Your task to perform on an android device: Go to Amazon Image 0: 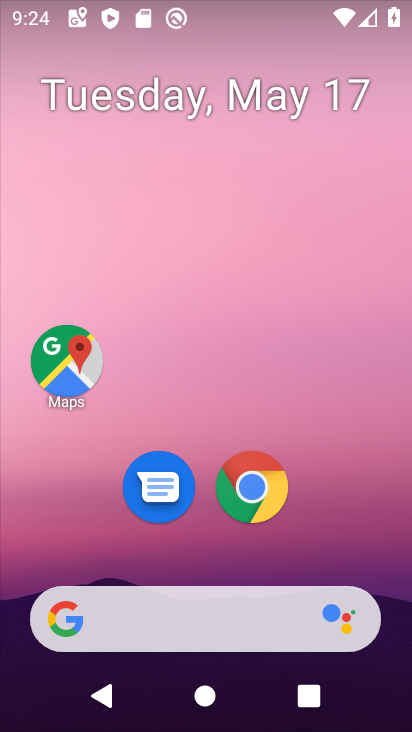
Step 0: press home button
Your task to perform on an android device: Go to Amazon Image 1: 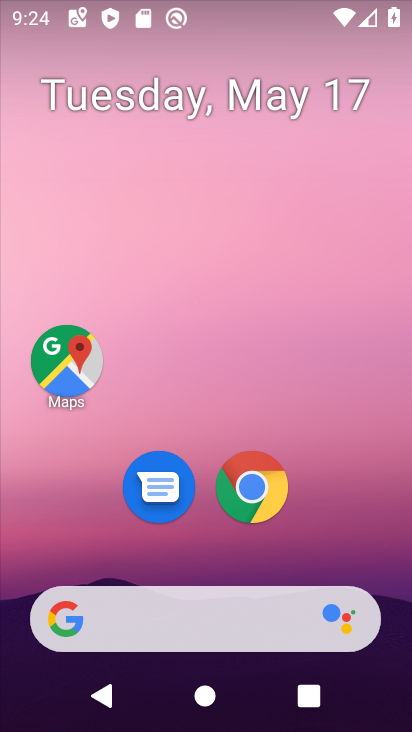
Step 1: drag from (280, 637) to (101, 196)
Your task to perform on an android device: Go to Amazon Image 2: 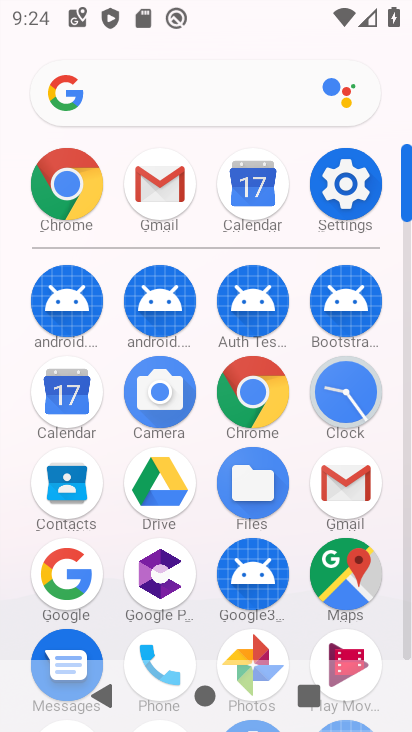
Step 2: click (55, 182)
Your task to perform on an android device: Go to Amazon Image 3: 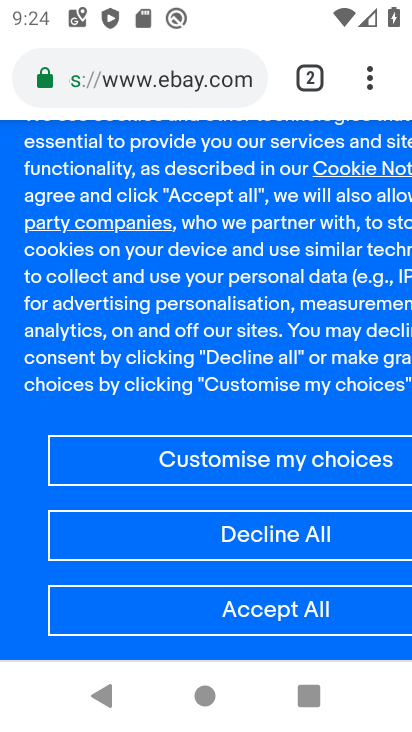
Step 3: click (367, 78)
Your task to perform on an android device: Go to Amazon Image 4: 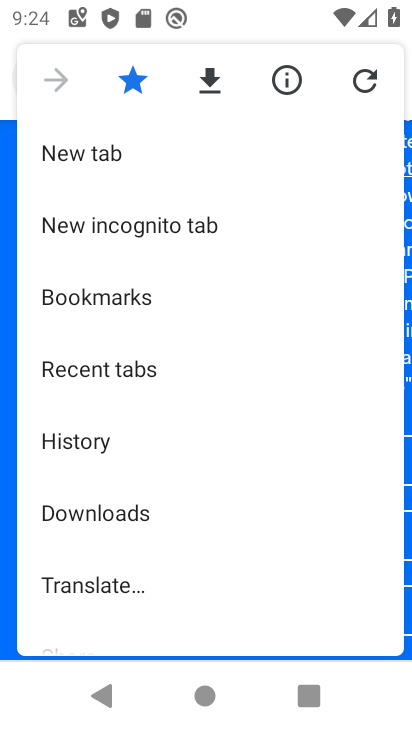
Step 4: click (93, 145)
Your task to perform on an android device: Go to Amazon Image 5: 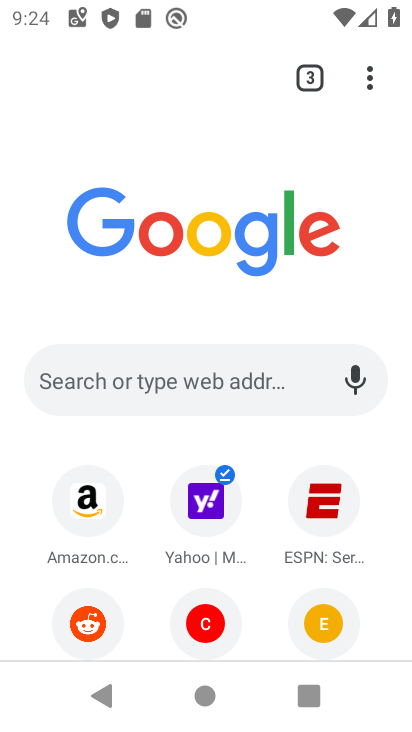
Step 5: click (88, 494)
Your task to perform on an android device: Go to Amazon Image 6: 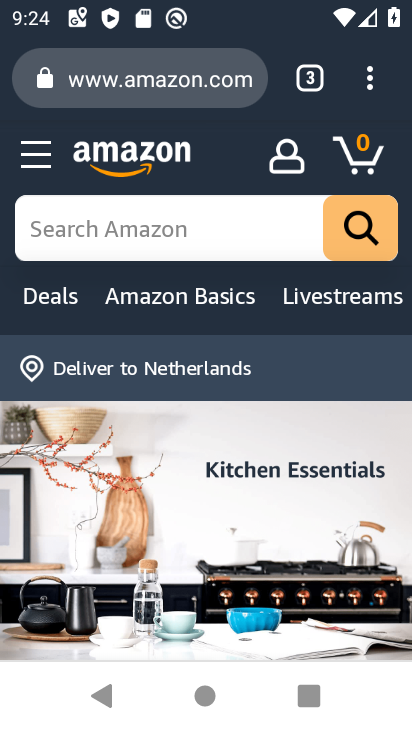
Step 6: task complete